Your task to perform on an android device: Go to Wikipedia Image 0: 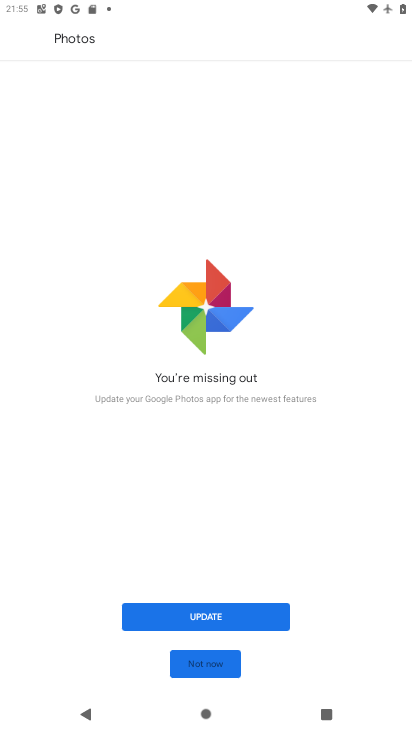
Step 0: press home button
Your task to perform on an android device: Go to Wikipedia Image 1: 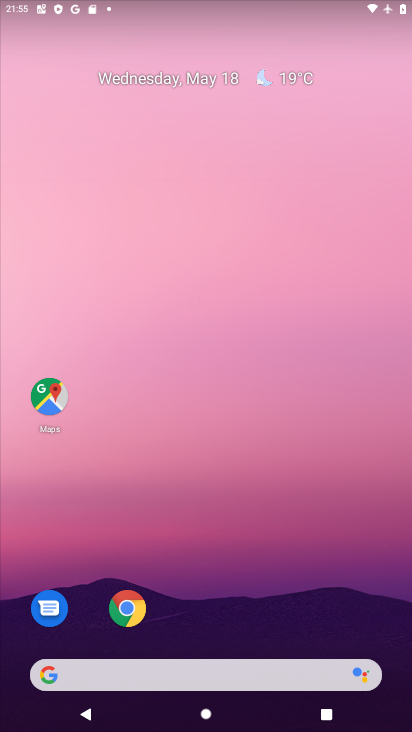
Step 1: drag from (306, 508) to (290, 145)
Your task to perform on an android device: Go to Wikipedia Image 2: 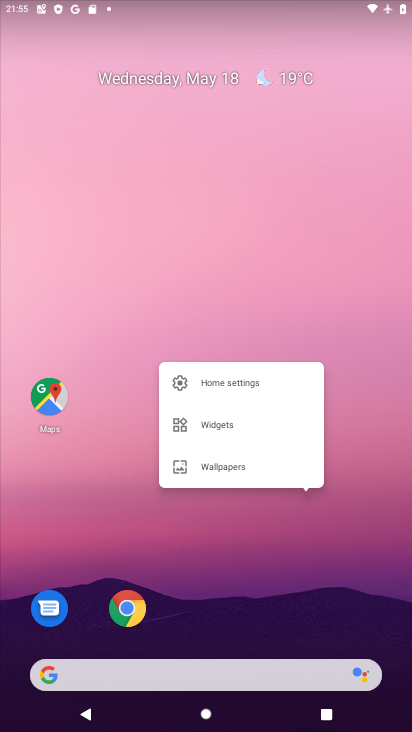
Step 2: click (308, 545)
Your task to perform on an android device: Go to Wikipedia Image 3: 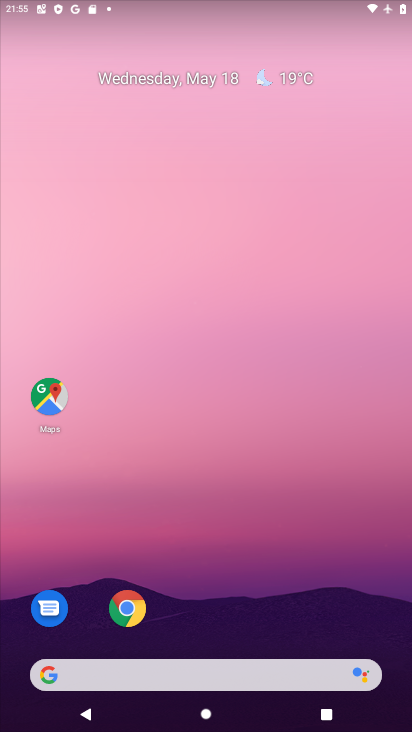
Step 3: drag from (308, 545) to (352, 161)
Your task to perform on an android device: Go to Wikipedia Image 4: 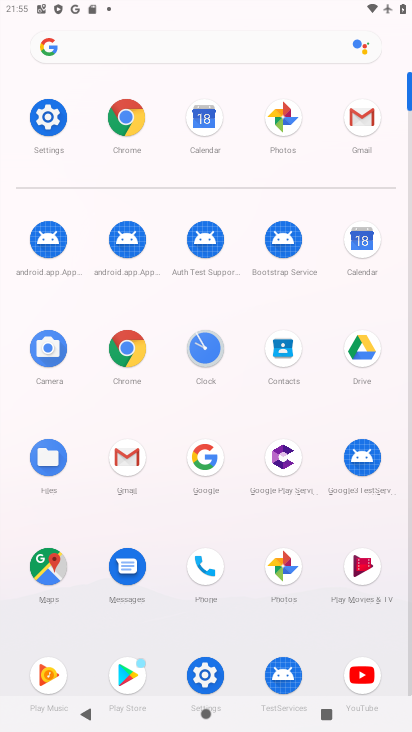
Step 4: click (61, 139)
Your task to perform on an android device: Go to Wikipedia Image 5: 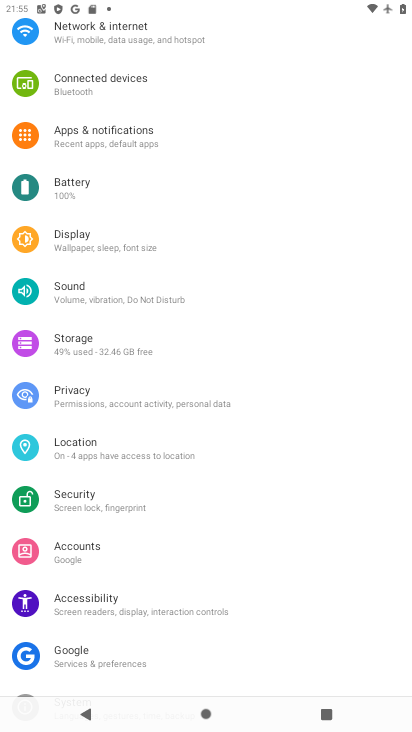
Step 5: press home button
Your task to perform on an android device: Go to Wikipedia Image 6: 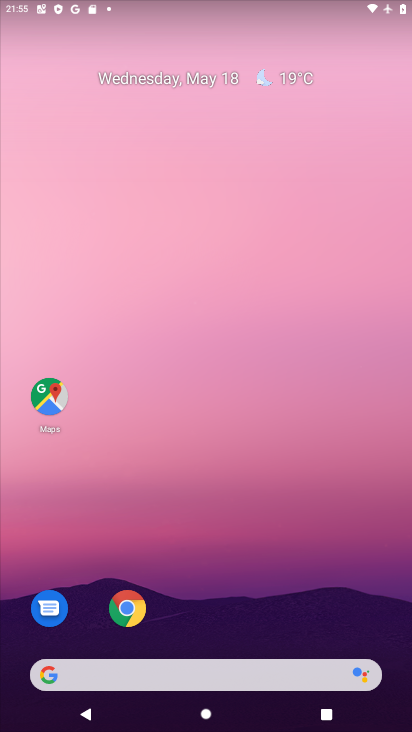
Step 6: drag from (126, 571) to (224, 201)
Your task to perform on an android device: Go to Wikipedia Image 7: 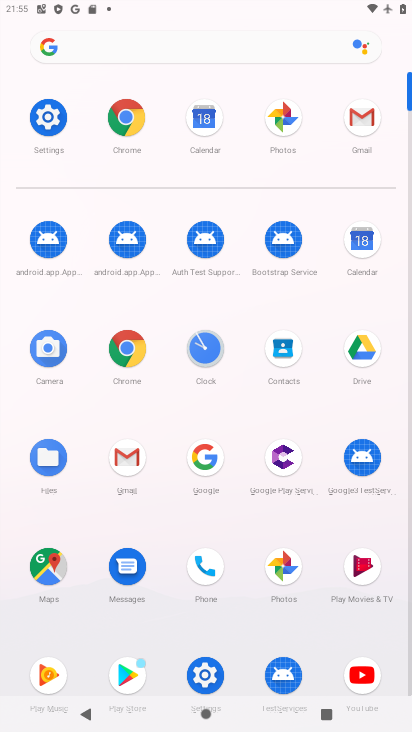
Step 7: click (126, 108)
Your task to perform on an android device: Go to Wikipedia Image 8: 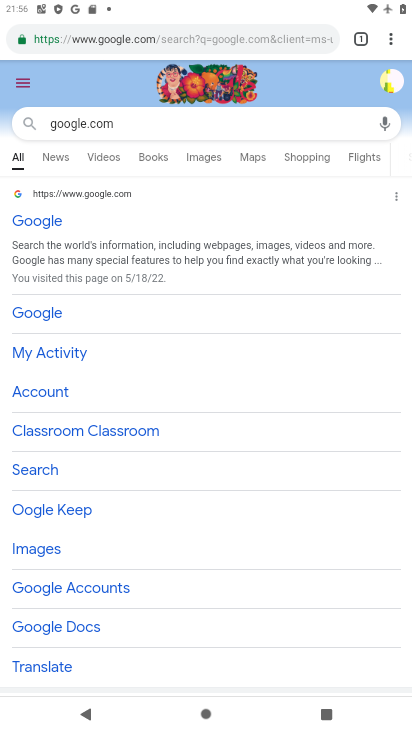
Step 8: click (177, 49)
Your task to perform on an android device: Go to Wikipedia Image 9: 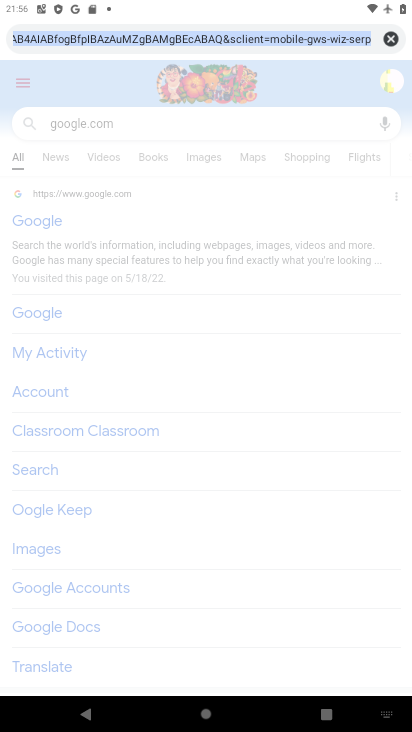
Step 9: type "wikipedia"
Your task to perform on an android device: Go to Wikipedia Image 10: 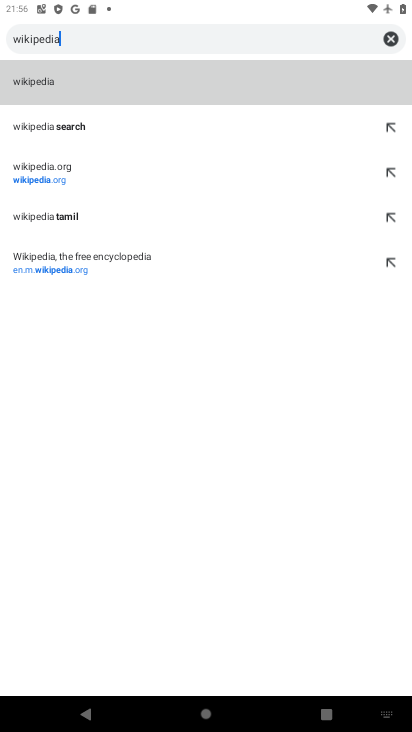
Step 10: click (114, 166)
Your task to perform on an android device: Go to Wikipedia Image 11: 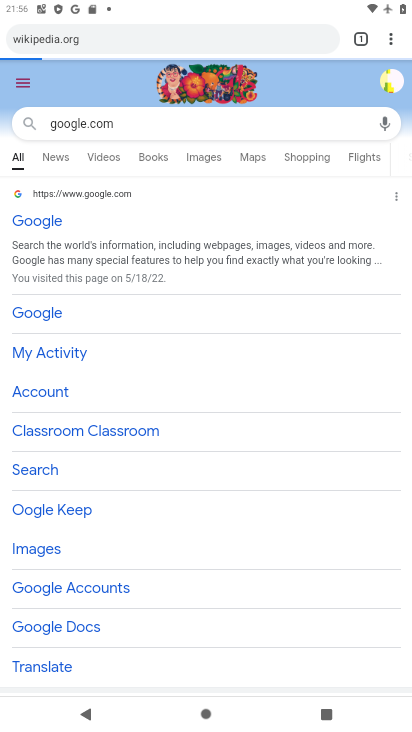
Step 11: task complete